Your task to perform on an android device: Open sound settings Image 0: 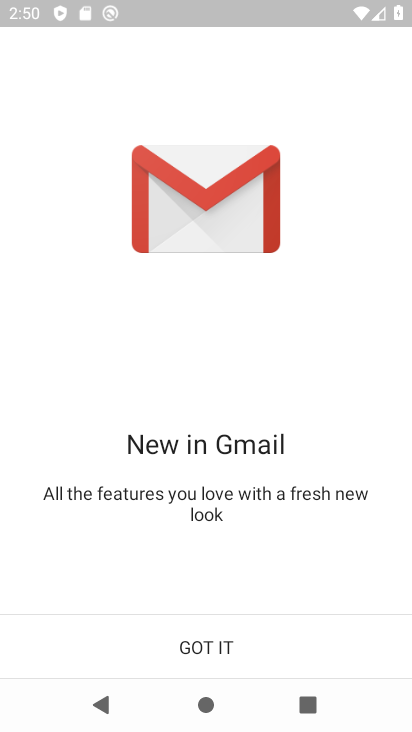
Step 0: press home button
Your task to perform on an android device: Open sound settings Image 1: 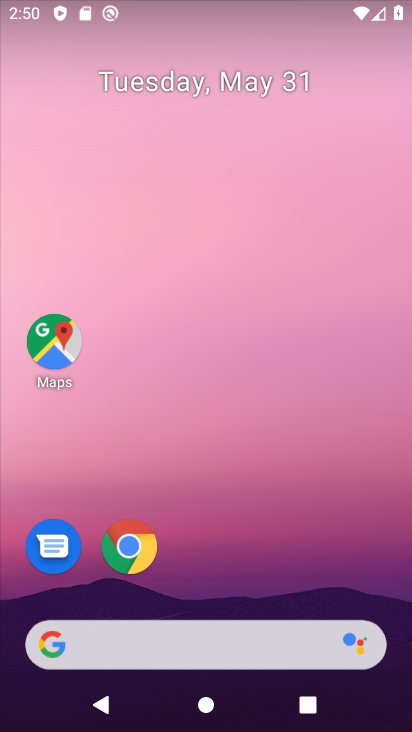
Step 1: drag from (201, 585) to (173, 315)
Your task to perform on an android device: Open sound settings Image 2: 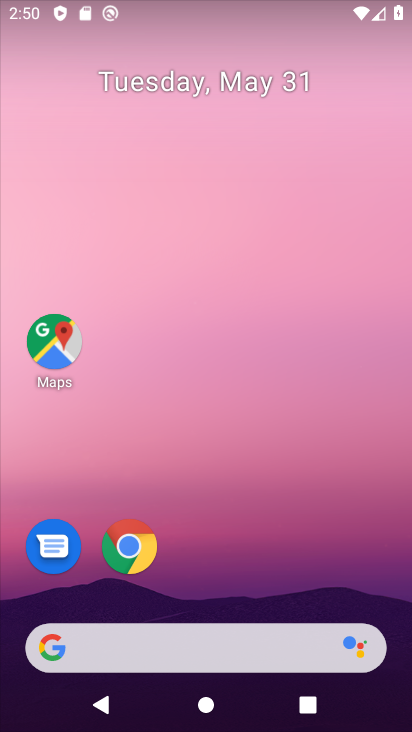
Step 2: drag from (231, 594) to (181, 178)
Your task to perform on an android device: Open sound settings Image 3: 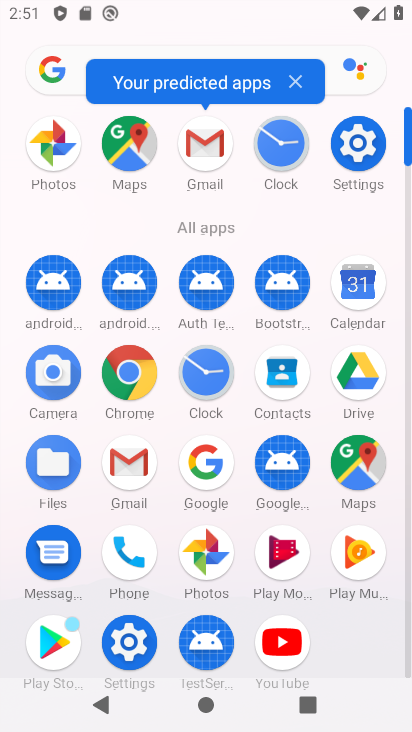
Step 3: click (354, 152)
Your task to perform on an android device: Open sound settings Image 4: 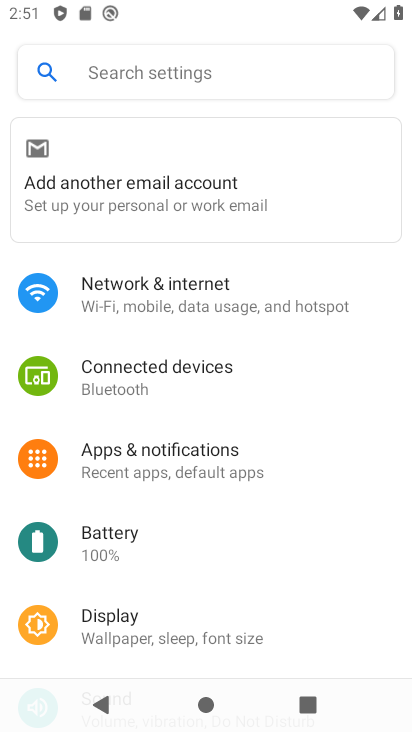
Step 4: drag from (159, 593) to (152, 266)
Your task to perform on an android device: Open sound settings Image 5: 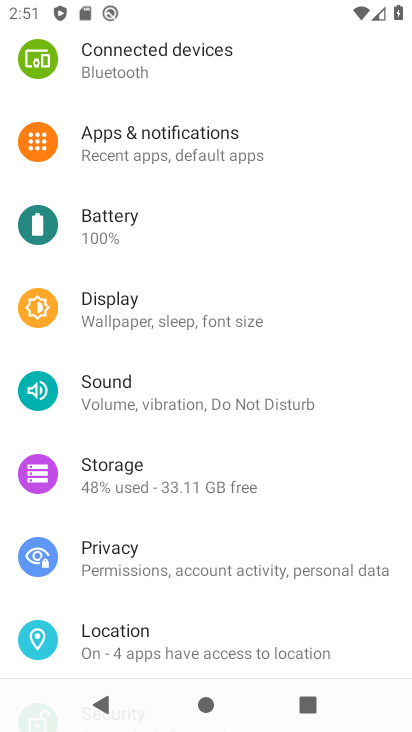
Step 5: click (96, 396)
Your task to perform on an android device: Open sound settings Image 6: 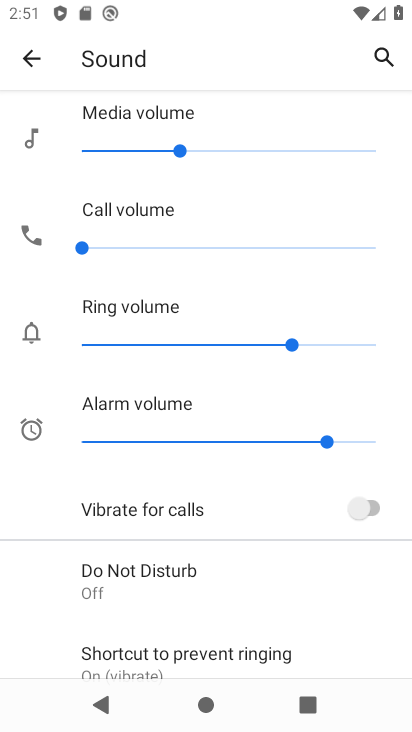
Step 6: task complete